Your task to perform on an android device: Search for seafood restaurants on Google Maps Image 0: 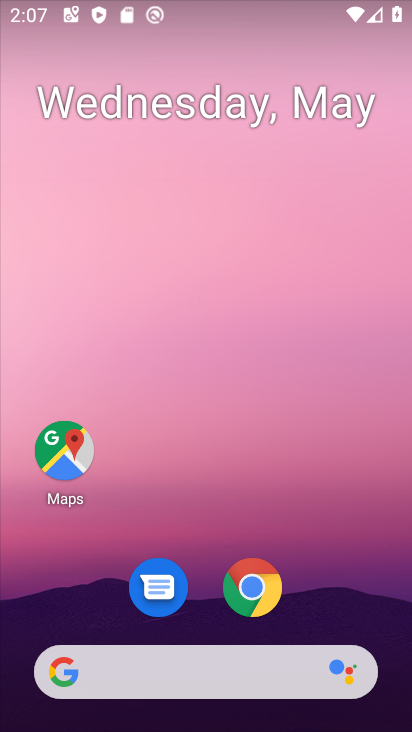
Step 0: drag from (354, 607) to (380, 71)
Your task to perform on an android device: Search for seafood restaurants on Google Maps Image 1: 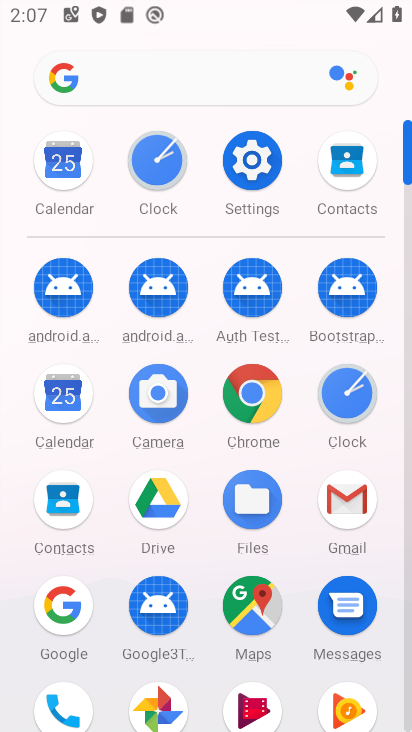
Step 1: drag from (200, 587) to (205, 132)
Your task to perform on an android device: Search for seafood restaurants on Google Maps Image 2: 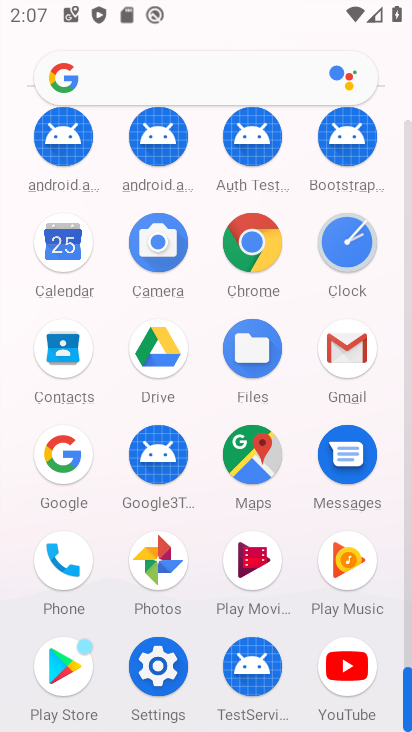
Step 2: drag from (199, 621) to (186, 167)
Your task to perform on an android device: Search for seafood restaurants on Google Maps Image 3: 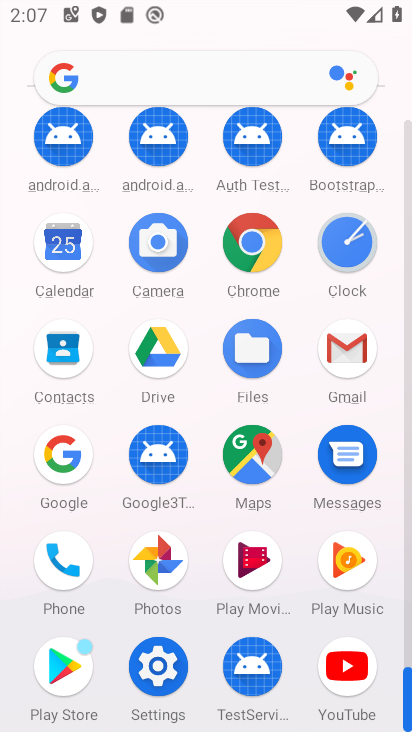
Step 3: click (257, 480)
Your task to perform on an android device: Search for seafood restaurants on Google Maps Image 4: 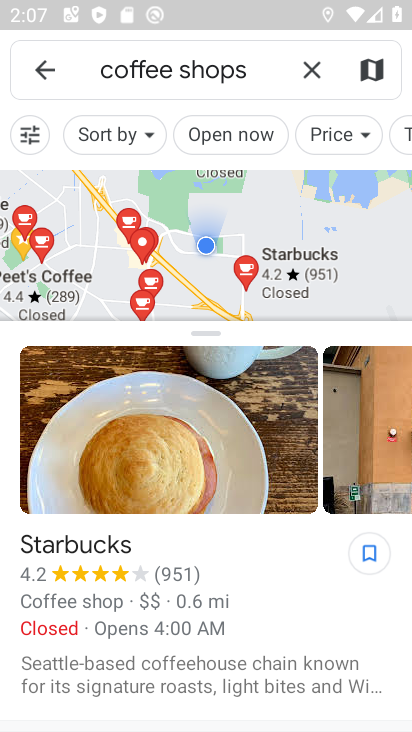
Step 4: click (308, 70)
Your task to perform on an android device: Search for seafood restaurants on Google Maps Image 5: 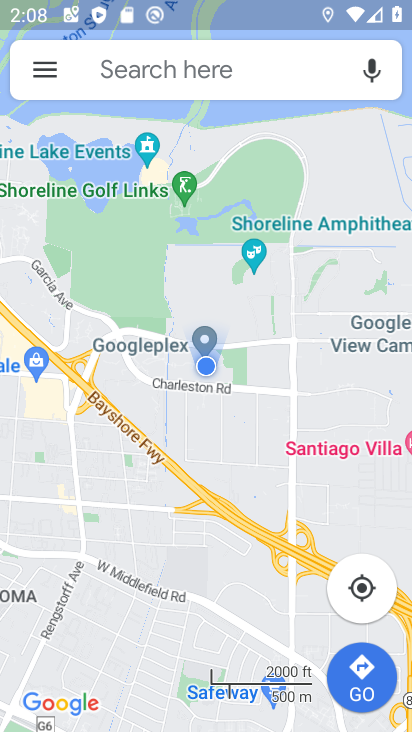
Step 5: click (235, 70)
Your task to perform on an android device: Search for seafood restaurants on Google Maps Image 6: 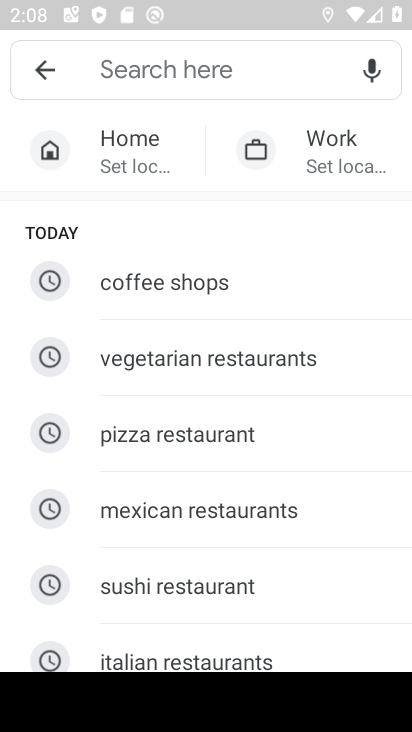
Step 6: drag from (205, 634) to (174, 373)
Your task to perform on an android device: Search for seafood restaurants on Google Maps Image 7: 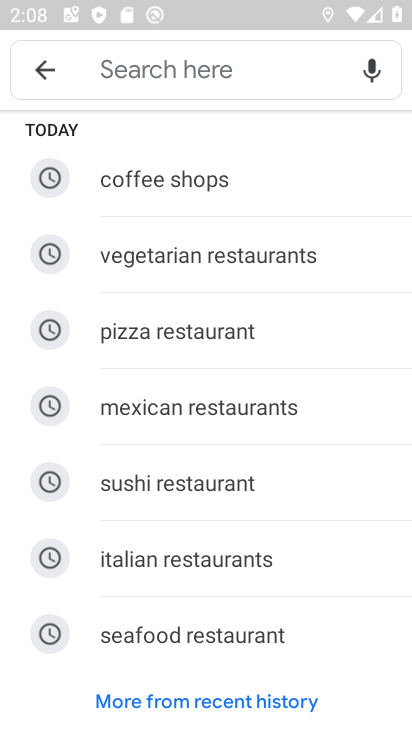
Step 7: click (170, 625)
Your task to perform on an android device: Search for seafood restaurants on Google Maps Image 8: 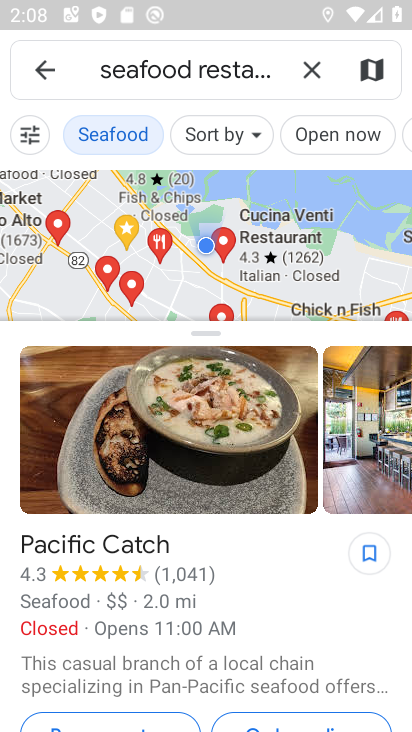
Step 8: task complete